Your task to perform on an android device: Go to Google Image 0: 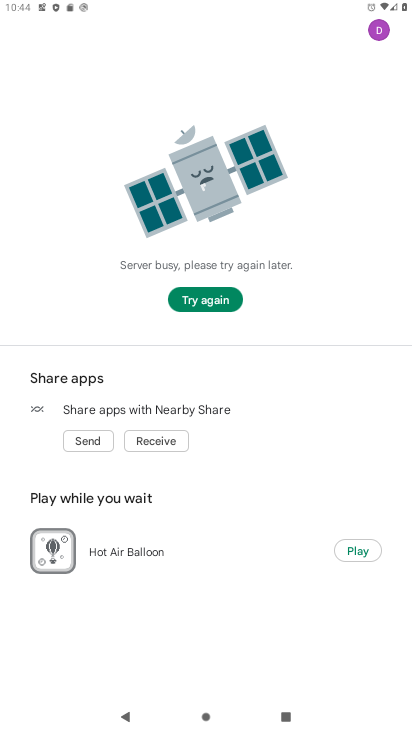
Step 0: press home button
Your task to perform on an android device: Go to Google Image 1: 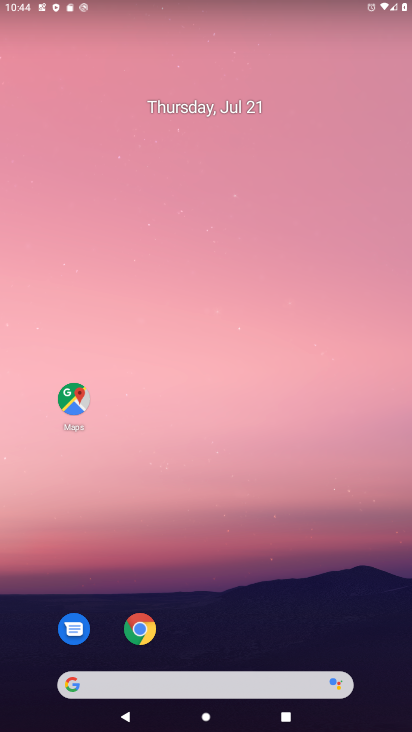
Step 1: drag from (281, 608) to (339, 67)
Your task to perform on an android device: Go to Google Image 2: 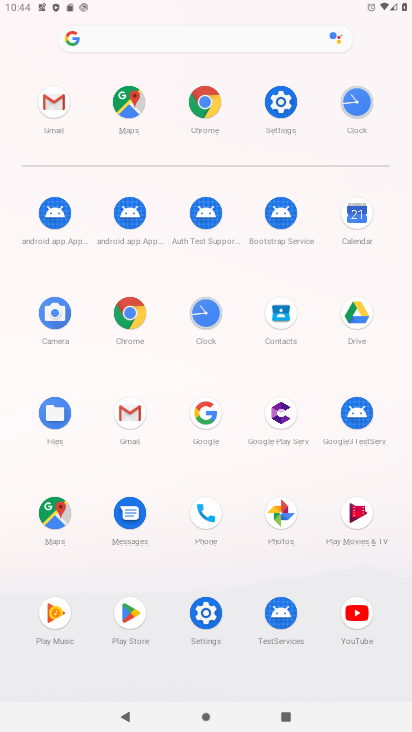
Step 2: click (203, 414)
Your task to perform on an android device: Go to Google Image 3: 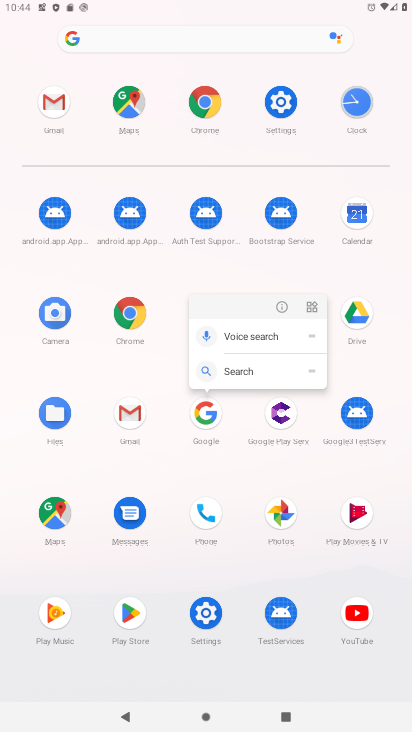
Step 3: click (204, 405)
Your task to perform on an android device: Go to Google Image 4: 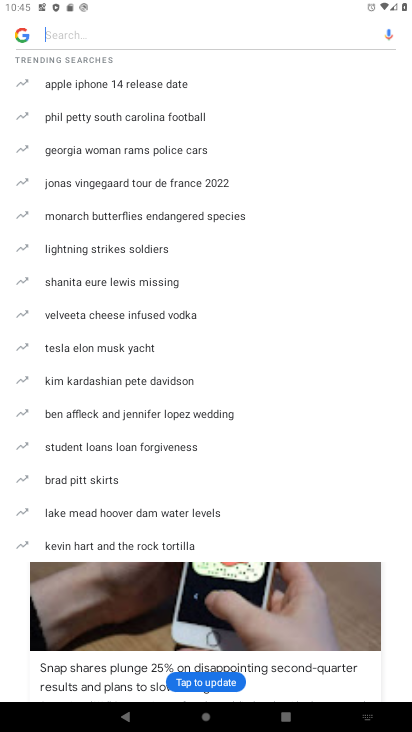
Step 4: task complete